Your task to perform on an android device: Show the shopping cart on target.com. Image 0: 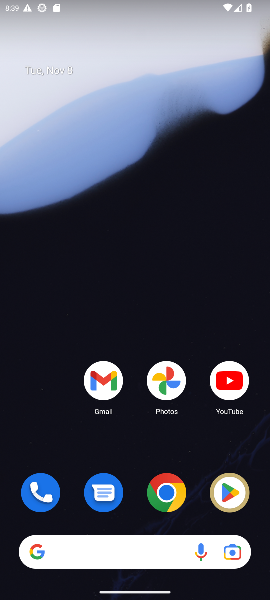
Step 0: click (172, 502)
Your task to perform on an android device: Show the shopping cart on target.com. Image 1: 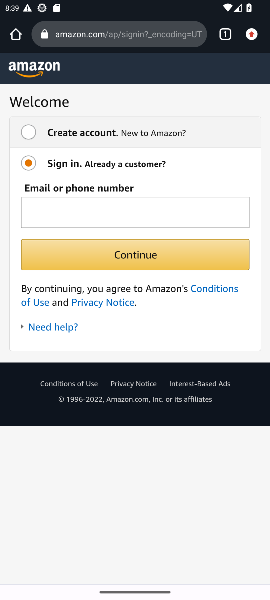
Step 1: click (13, 36)
Your task to perform on an android device: Show the shopping cart on target.com. Image 2: 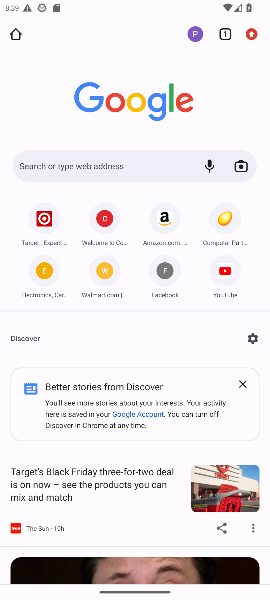
Step 2: click (42, 220)
Your task to perform on an android device: Show the shopping cart on target.com. Image 3: 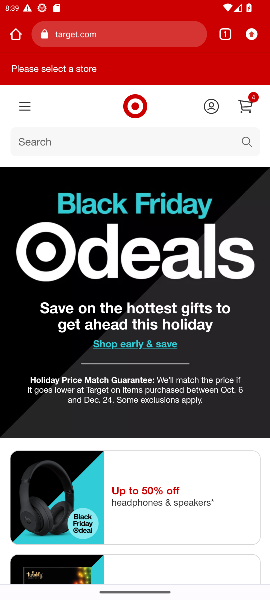
Step 3: click (245, 139)
Your task to perform on an android device: Show the shopping cart on target.com. Image 4: 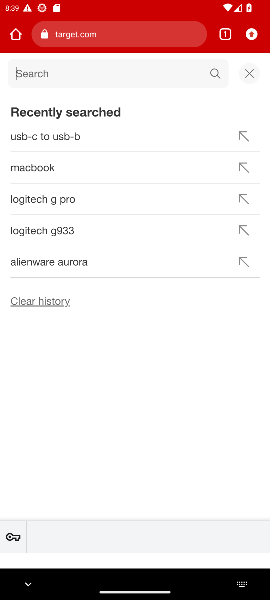
Step 4: click (252, 69)
Your task to perform on an android device: Show the shopping cart on target.com. Image 5: 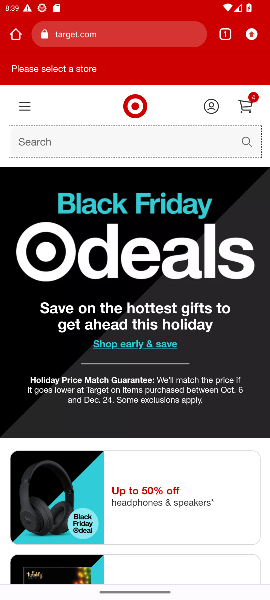
Step 5: click (242, 105)
Your task to perform on an android device: Show the shopping cart on target.com. Image 6: 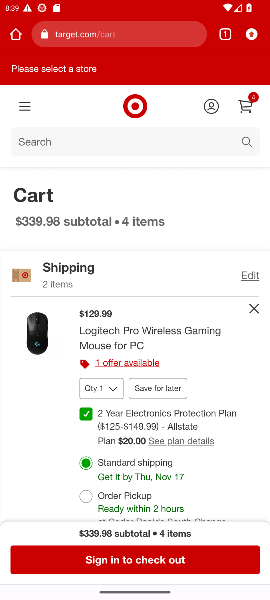
Step 6: click (255, 307)
Your task to perform on an android device: Show the shopping cart on target.com. Image 7: 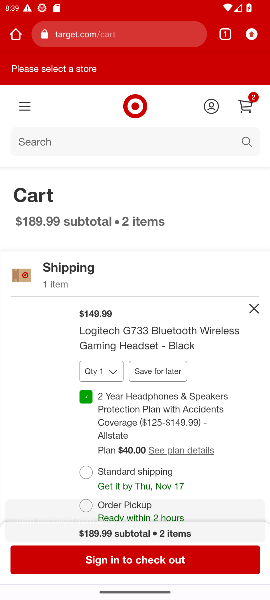
Step 7: task complete